Your task to perform on an android device: Show me the alarms in the clock app Image 0: 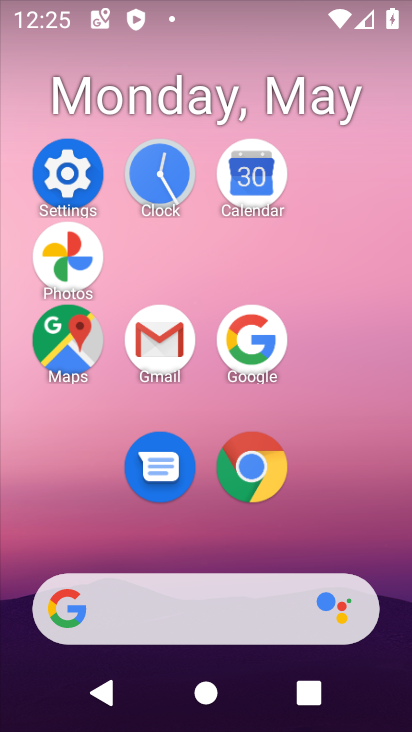
Step 0: click (169, 180)
Your task to perform on an android device: Show me the alarms in the clock app Image 1: 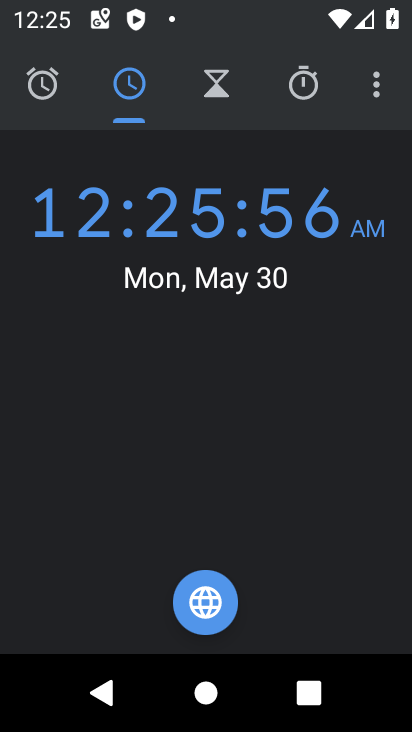
Step 1: click (47, 102)
Your task to perform on an android device: Show me the alarms in the clock app Image 2: 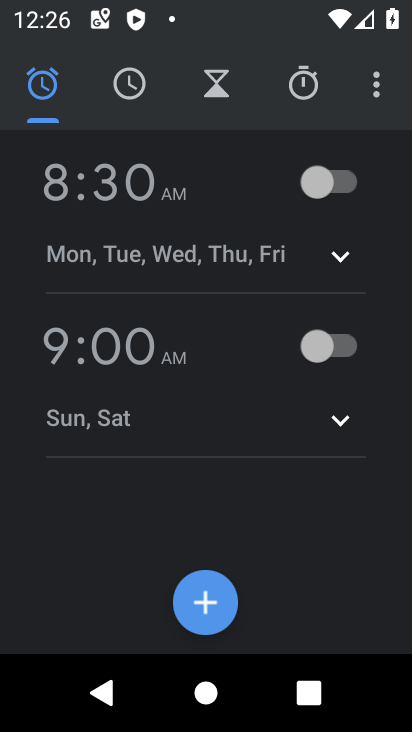
Step 2: task complete